Your task to perform on an android device: turn on the 12-hour format for clock Image 0: 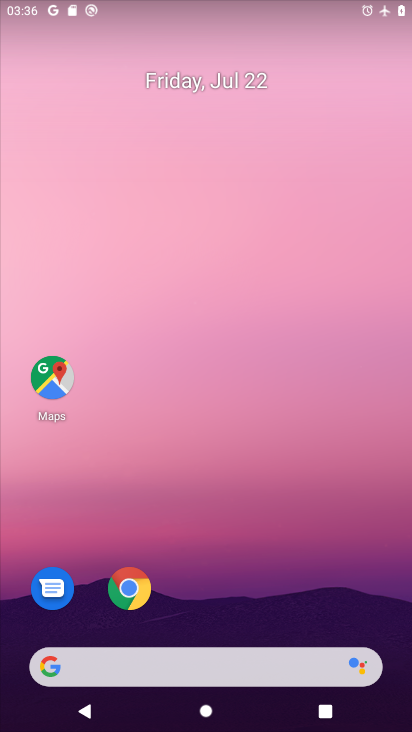
Step 0: drag from (254, 595) to (283, 15)
Your task to perform on an android device: turn on the 12-hour format for clock Image 1: 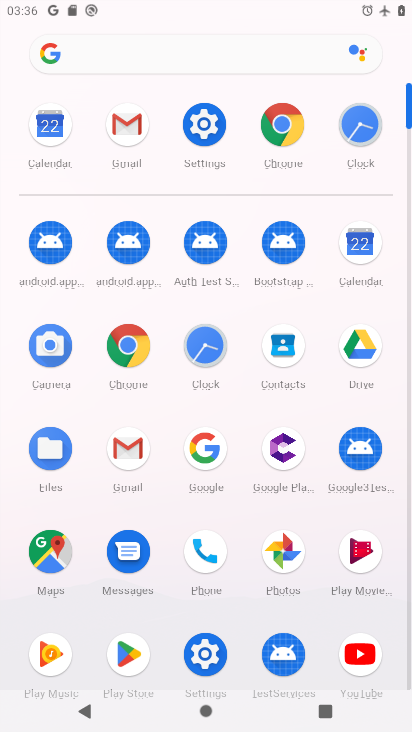
Step 1: click (202, 349)
Your task to perform on an android device: turn on the 12-hour format for clock Image 2: 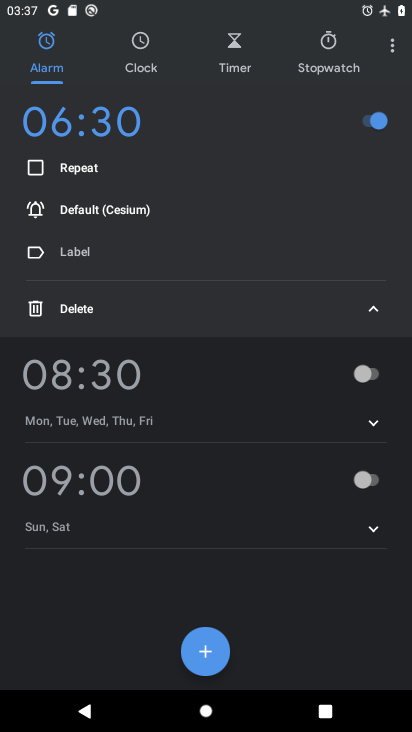
Step 2: click (394, 45)
Your task to perform on an android device: turn on the 12-hour format for clock Image 3: 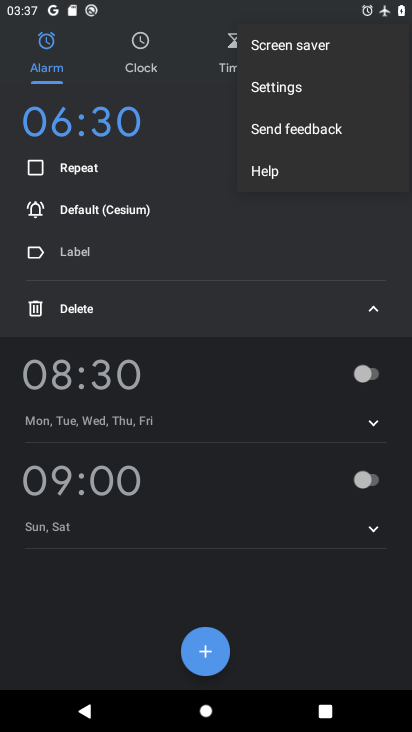
Step 3: click (264, 79)
Your task to perform on an android device: turn on the 12-hour format for clock Image 4: 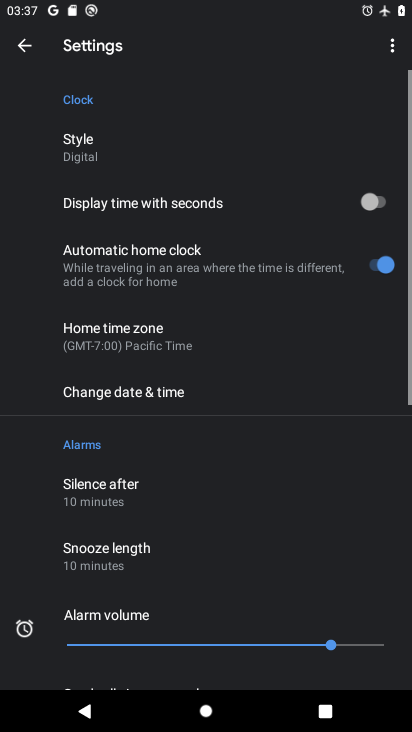
Step 4: drag from (301, 547) to (320, 258)
Your task to perform on an android device: turn on the 12-hour format for clock Image 5: 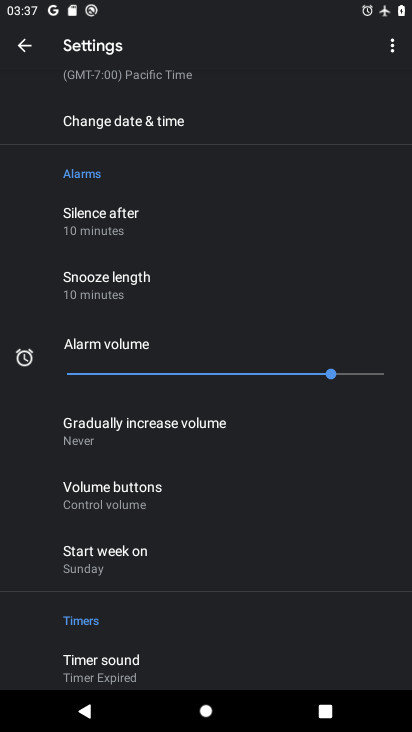
Step 5: drag from (309, 257) to (221, 654)
Your task to perform on an android device: turn on the 12-hour format for clock Image 6: 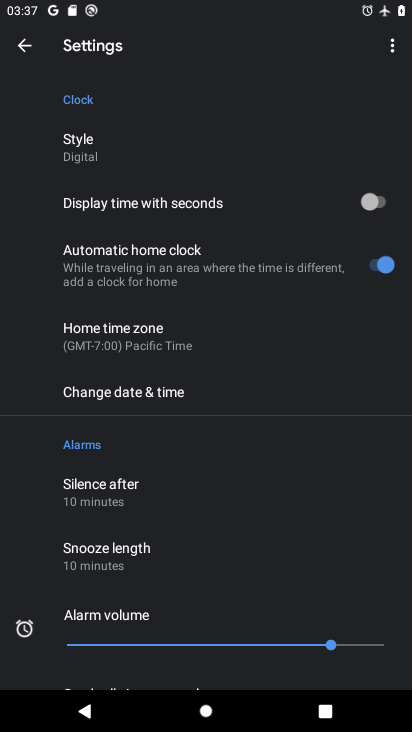
Step 6: click (120, 397)
Your task to perform on an android device: turn on the 12-hour format for clock Image 7: 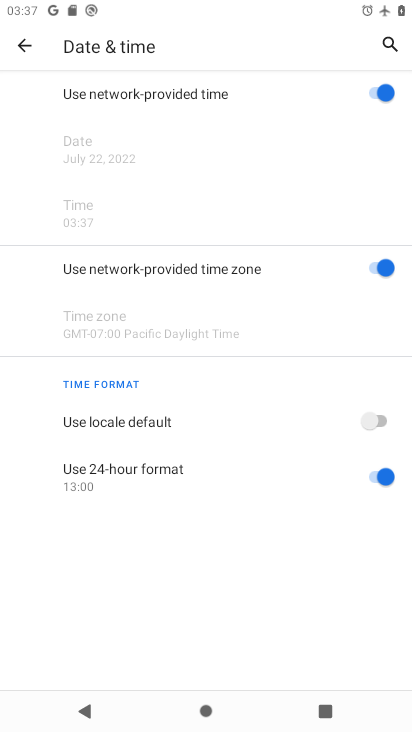
Step 7: click (330, 419)
Your task to perform on an android device: turn on the 12-hour format for clock Image 8: 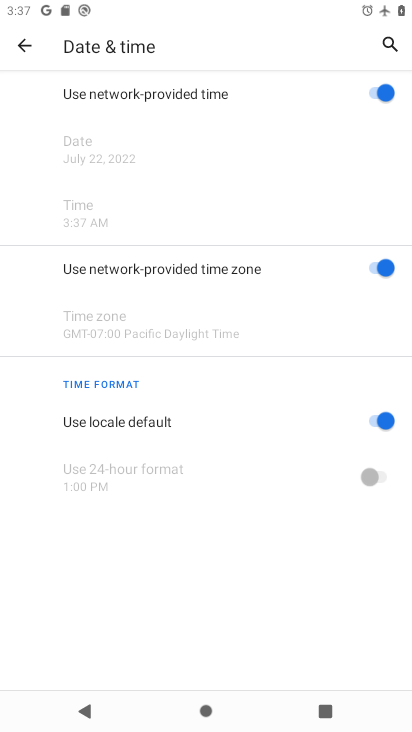
Step 8: task complete